Your task to perform on an android device: What's the weather today? Image 0: 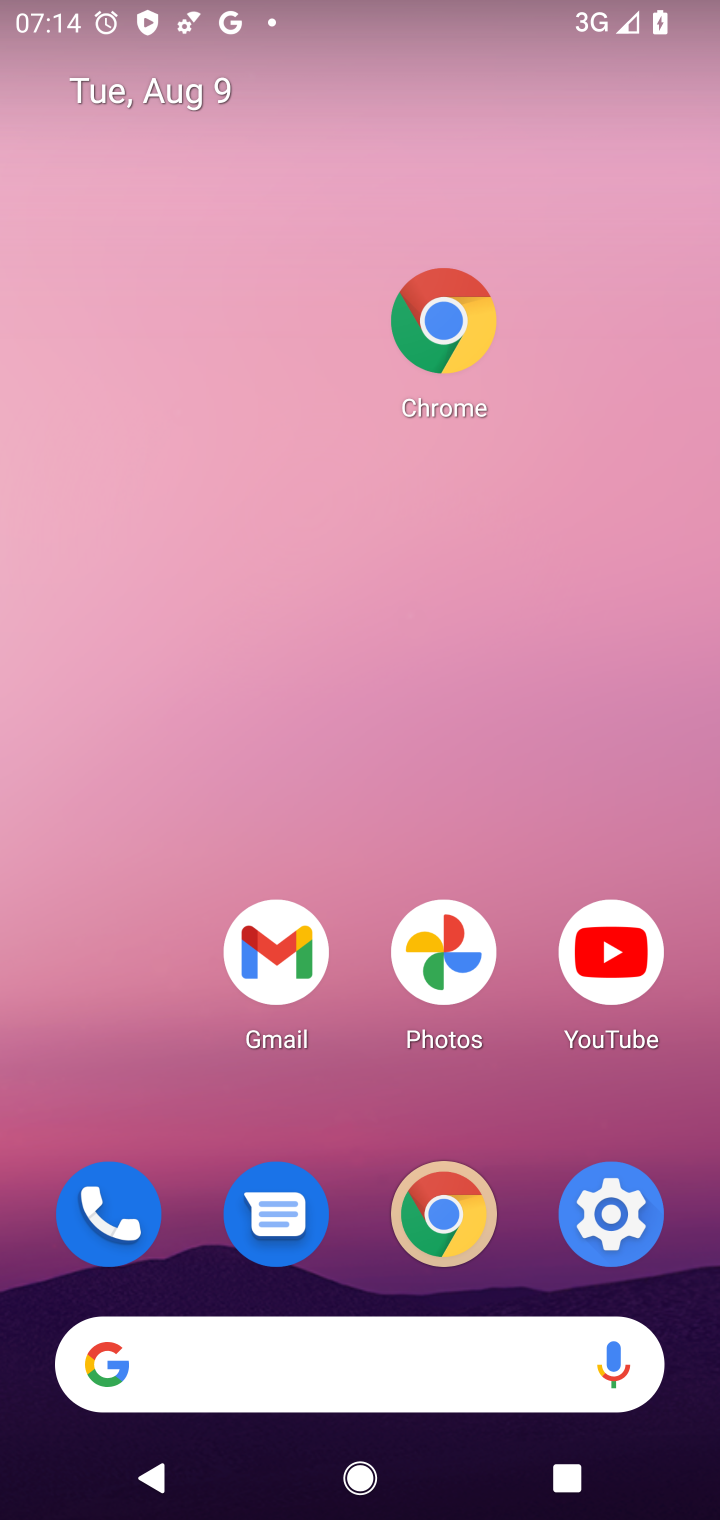
Step 0: click (481, 1331)
Your task to perform on an android device: What's the weather today? Image 1: 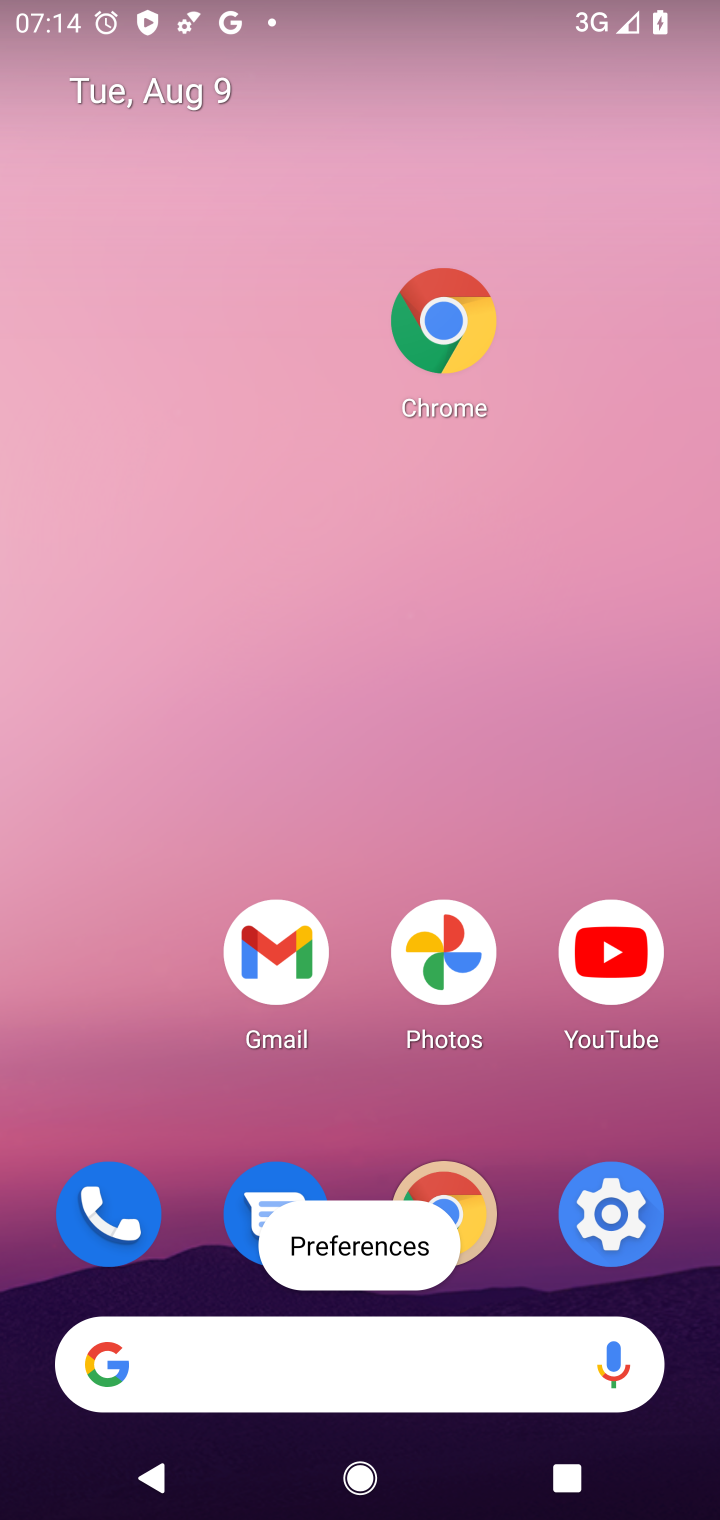
Step 1: click (265, 1369)
Your task to perform on an android device: What's the weather today? Image 2: 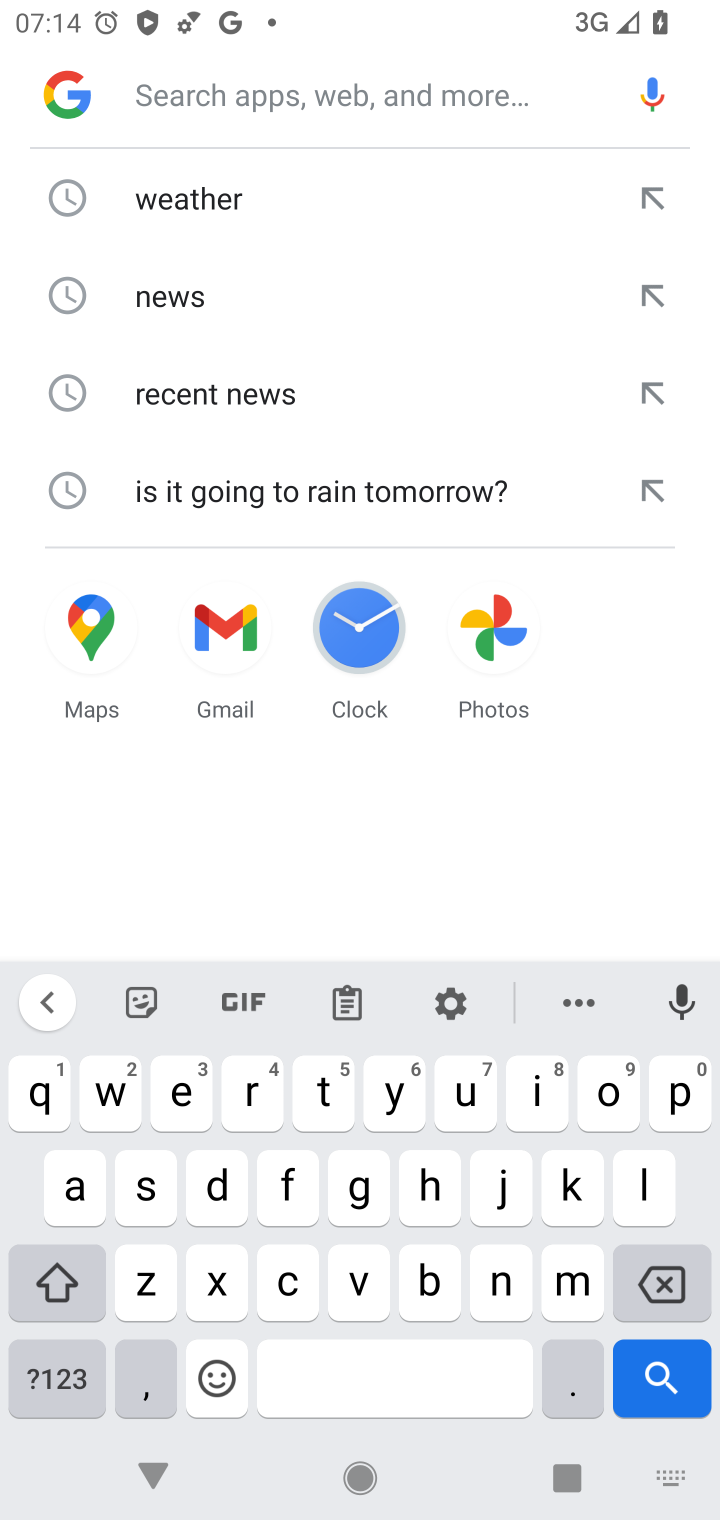
Step 2: click (172, 219)
Your task to perform on an android device: What's the weather today? Image 3: 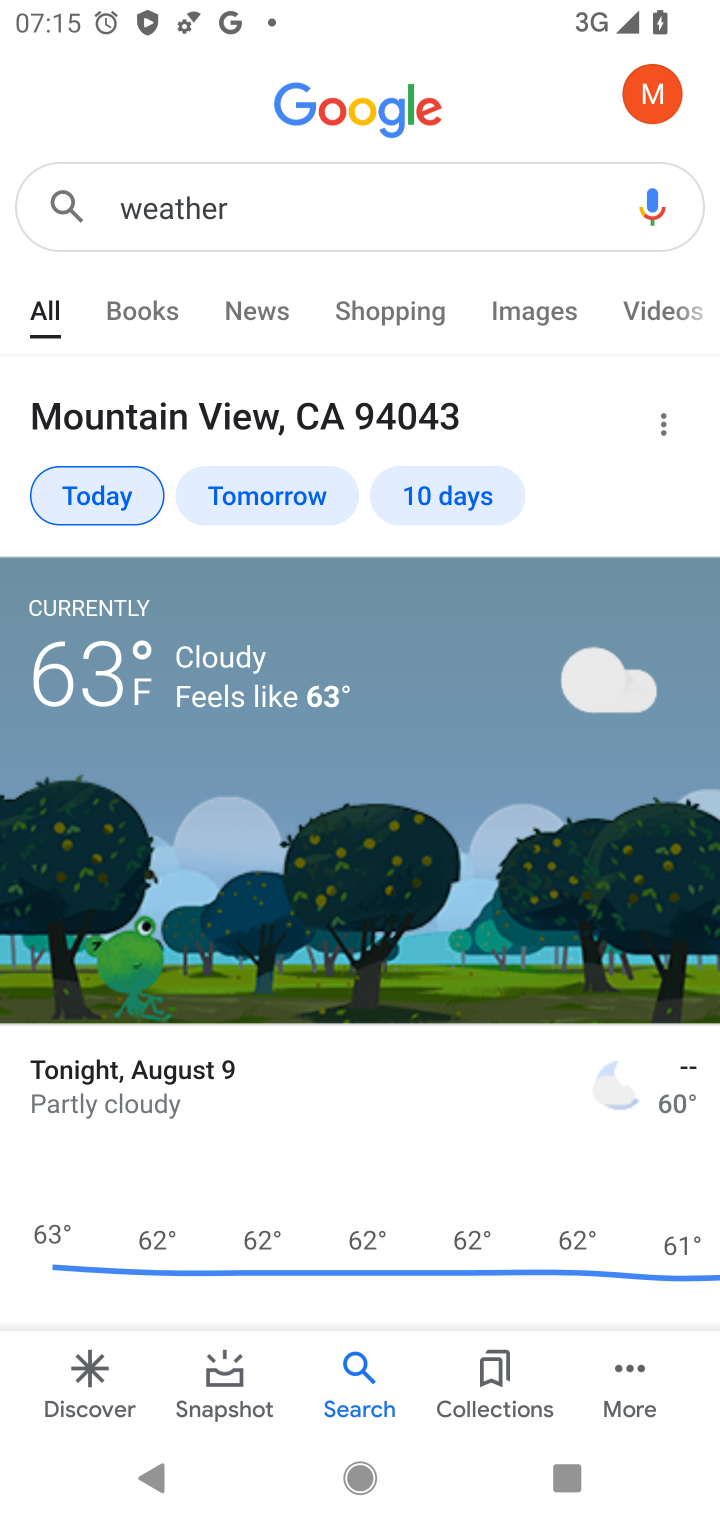
Step 3: task complete